Your task to perform on an android device: Go to Maps Image 0: 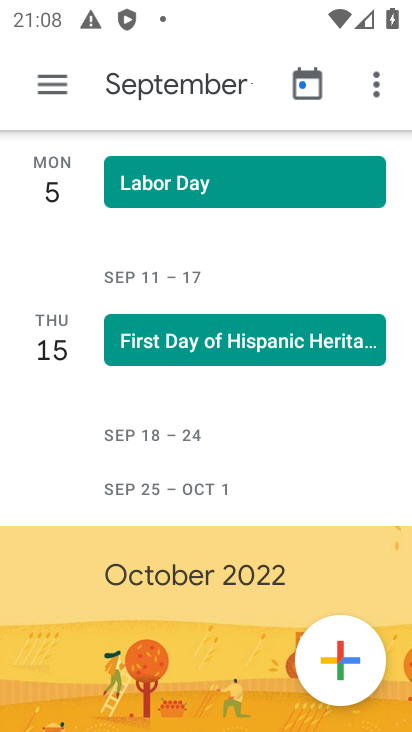
Step 0: press home button
Your task to perform on an android device: Go to Maps Image 1: 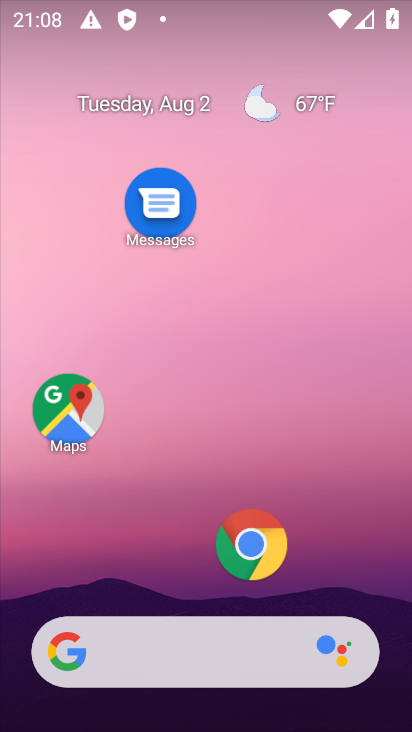
Step 1: click (56, 403)
Your task to perform on an android device: Go to Maps Image 2: 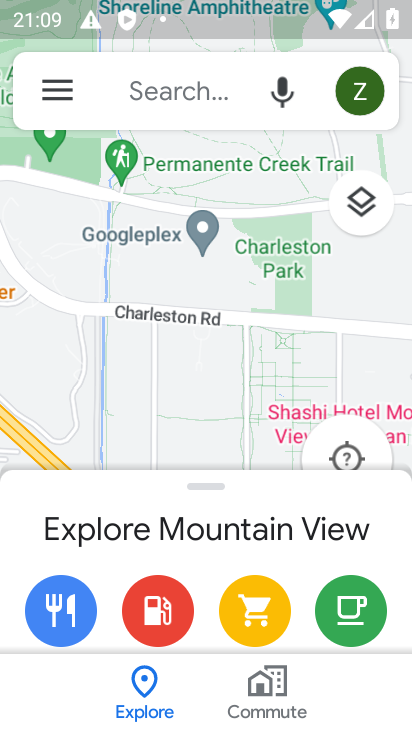
Step 2: task complete